Your task to perform on an android device: Open Yahoo.com Image 0: 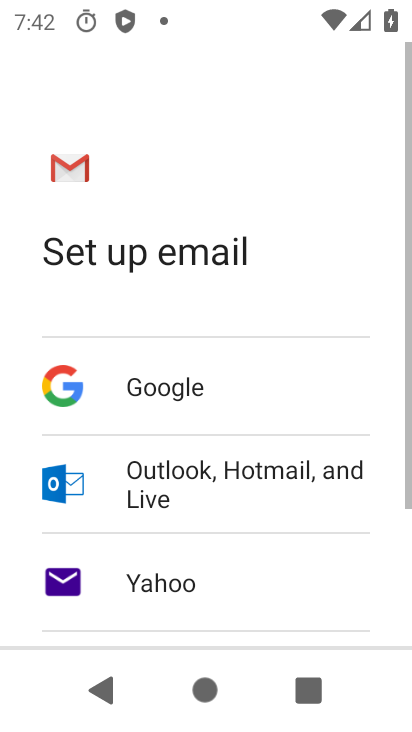
Step 0: press home button
Your task to perform on an android device: Open Yahoo.com Image 1: 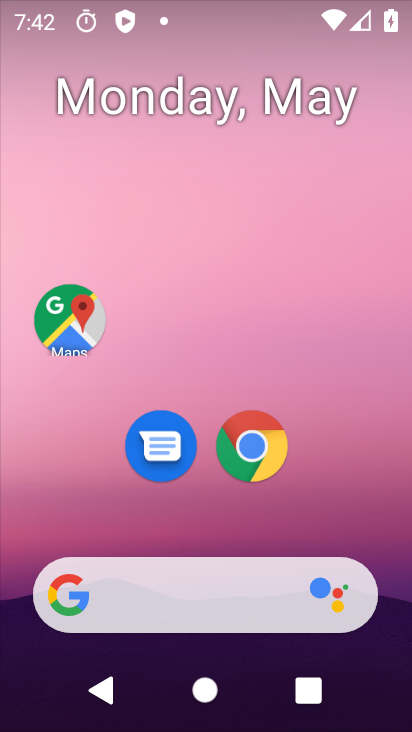
Step 1: click (261, 445)
Your task to perform on an android device: Open Yahoo.com Image 2: 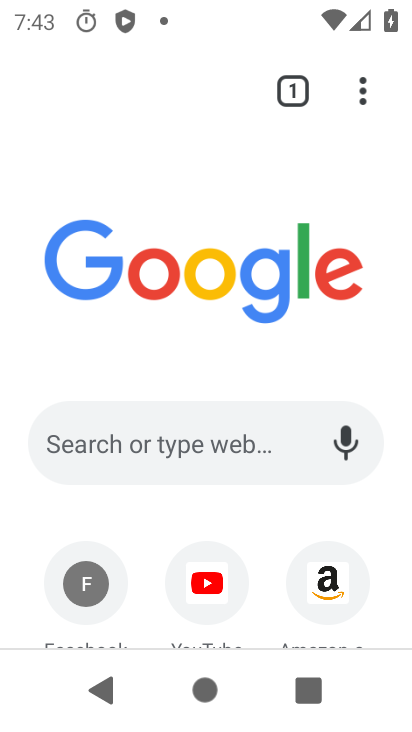
Step 2: drag from (391, 614) to (381, 450)
Your task to perform on an android device: Open Yahoo.com Image 3: 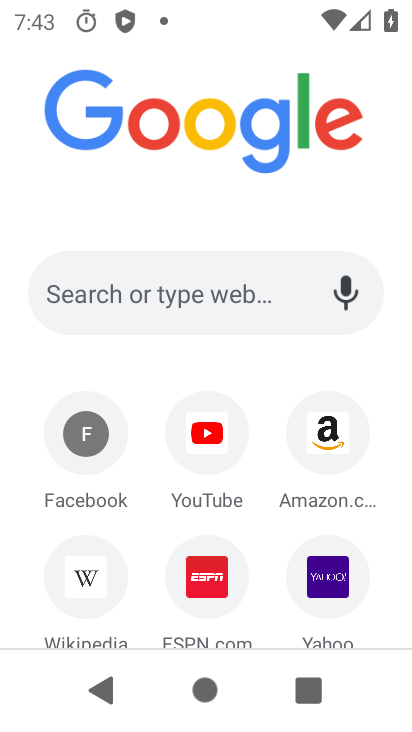
Step 3: click (326, 563)
Your task to perform on an android device: Open Yahoo.com Image 4: 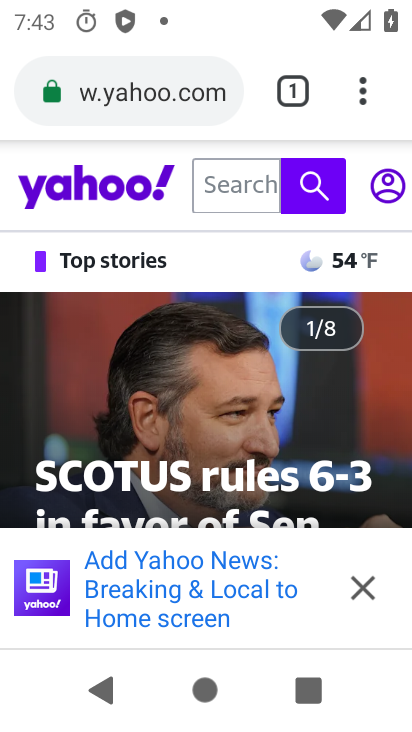
Step 4: task complete